Your task to perform on an android device: Open settings Image 0: 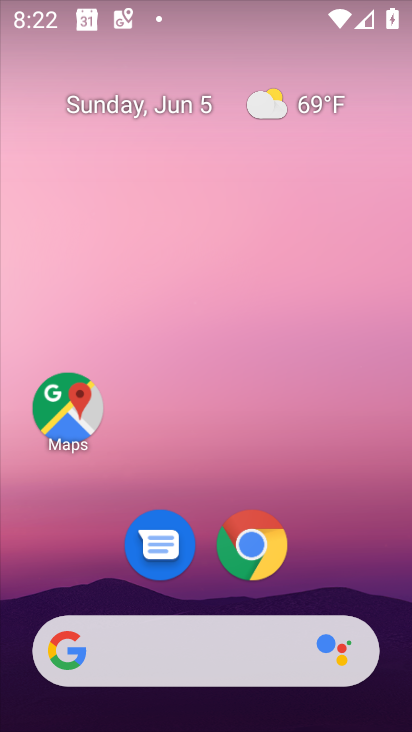
Step 0: drag from (381, 589) to (389, 233)
Your task to perform on an android device: Open settings Image 1: 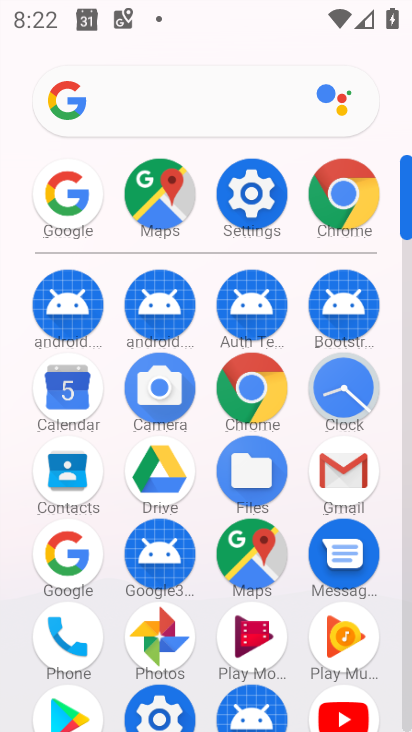
Step 1: click (261, 217)
Your task to perform on an android device: Open settings Image 2: 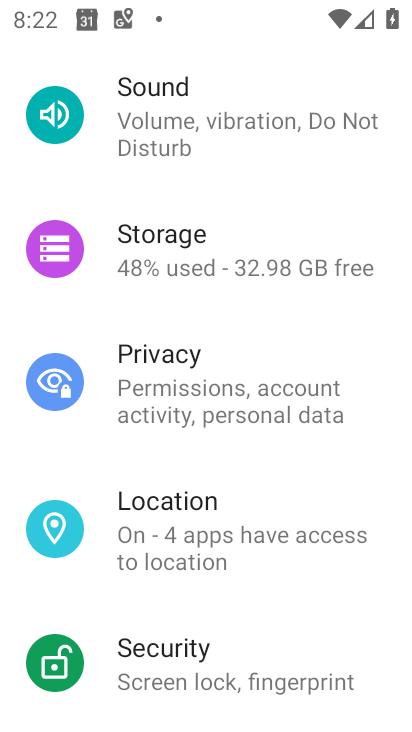
Step 2: task complete